Your task to perform on an android device: Open Google Maps and go to "Timeline" Image 0: 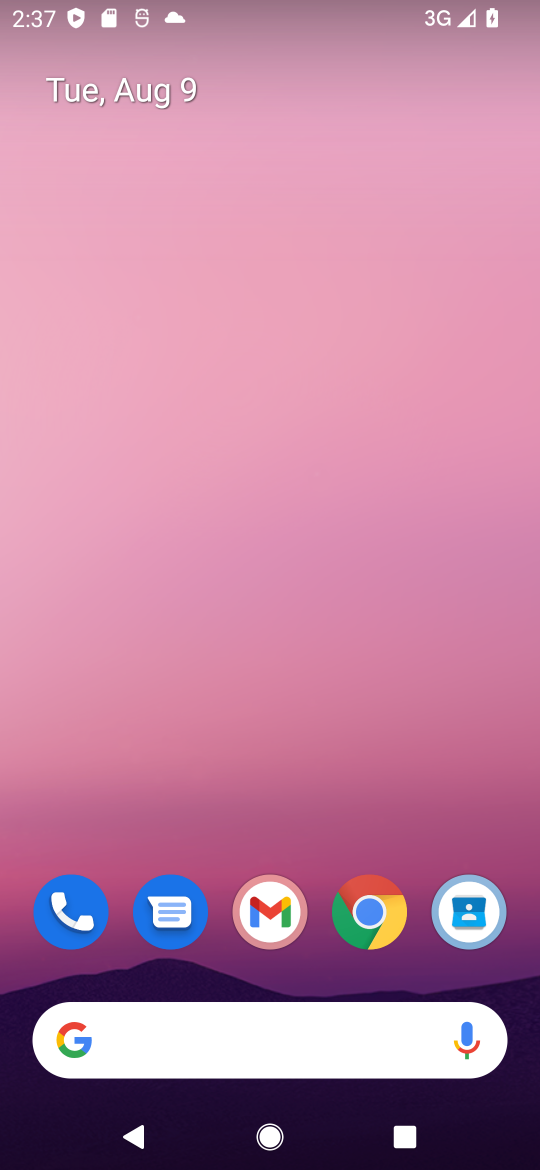
Step 0: drag from (327, 778) to (247, 216)
Your task to perform on an android device: Open Google Maps and go to "Timeline" Image 1: 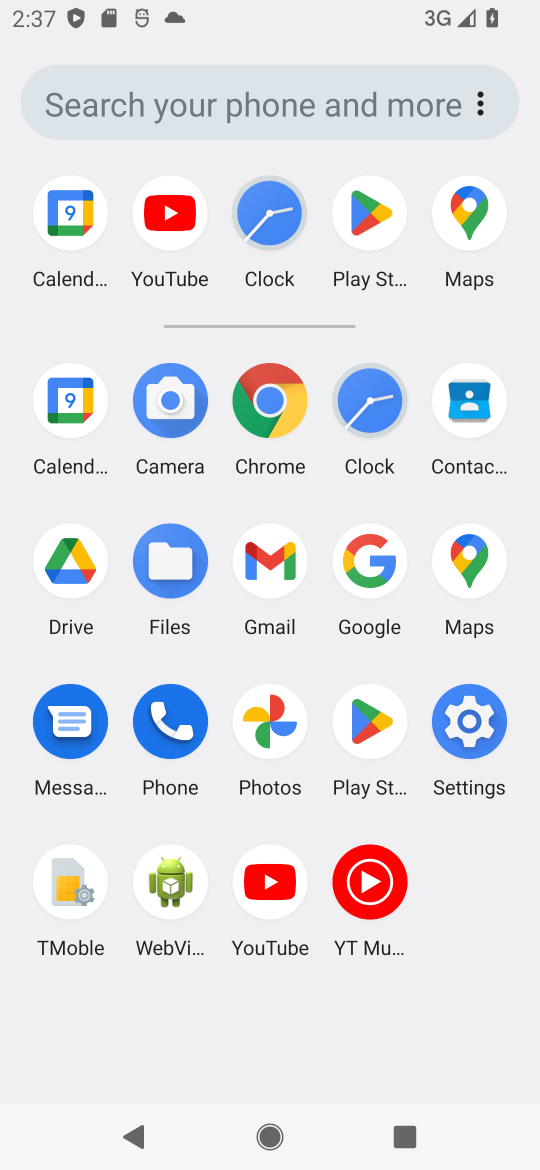
Step 1: click (471, 557)
Your task to perform on an android device: Open Google Maps and go to "Timeline" Image 2: 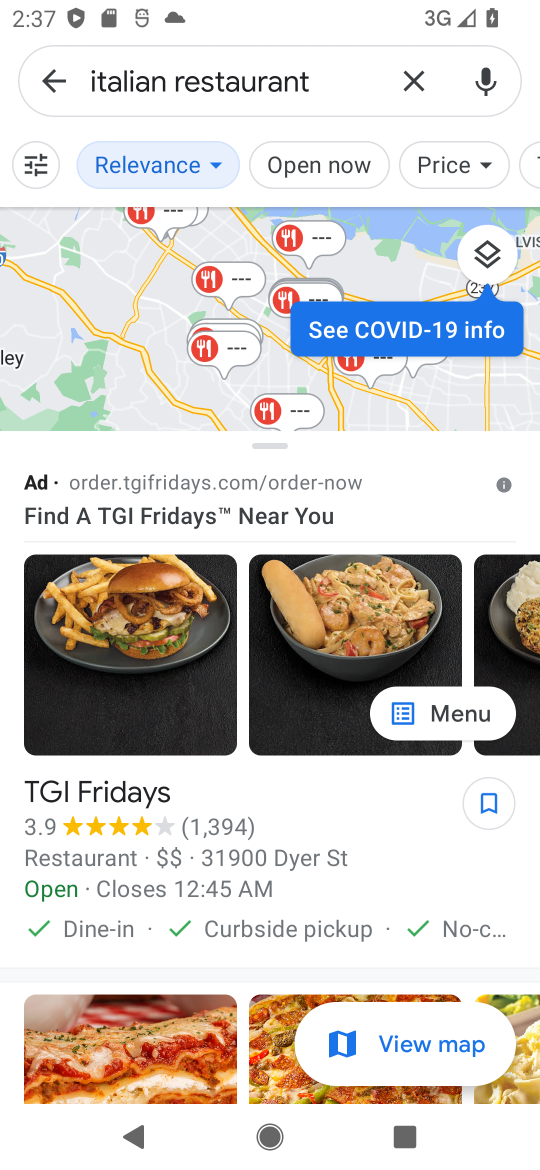
Step 2: click (44, 79)
Your task to perform on an android device: Open Google Maps and go to "Timeline" Image 3: 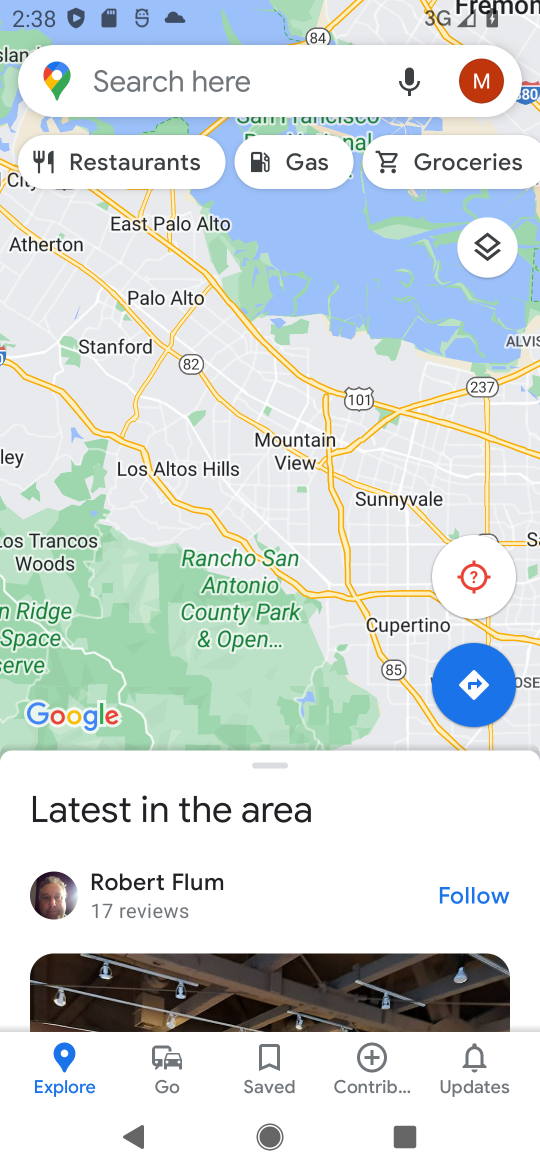
Step 3: click (474, 86)
Your task to perform on an android device: Open Google Maps and go to "Timeline" Image 4: 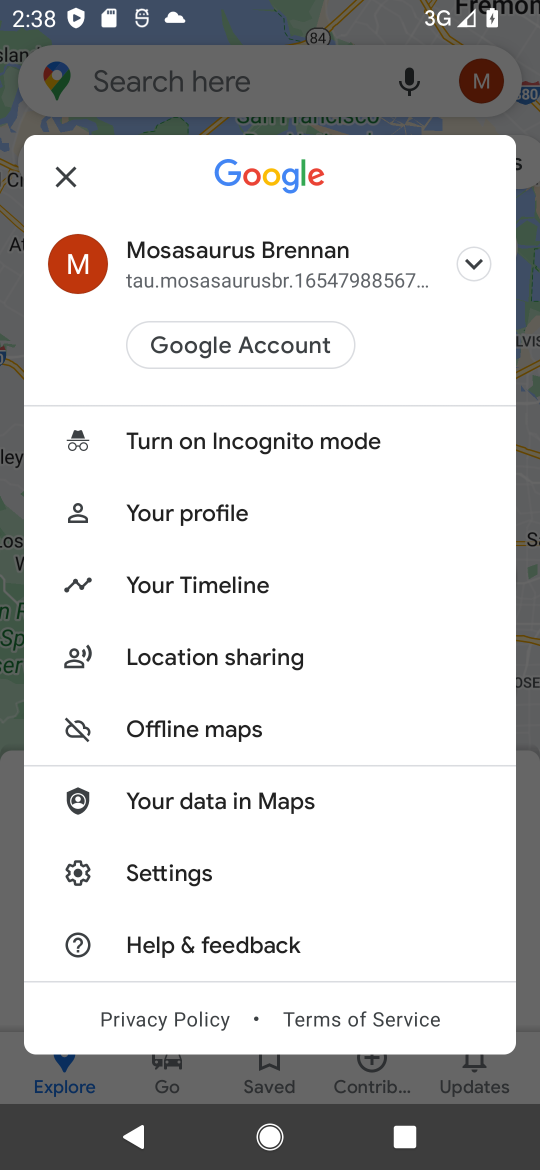
Step 4: click (200, 579)
Your task to perform on an android device: Open Google Maps and go to "Timeline" Image 5: 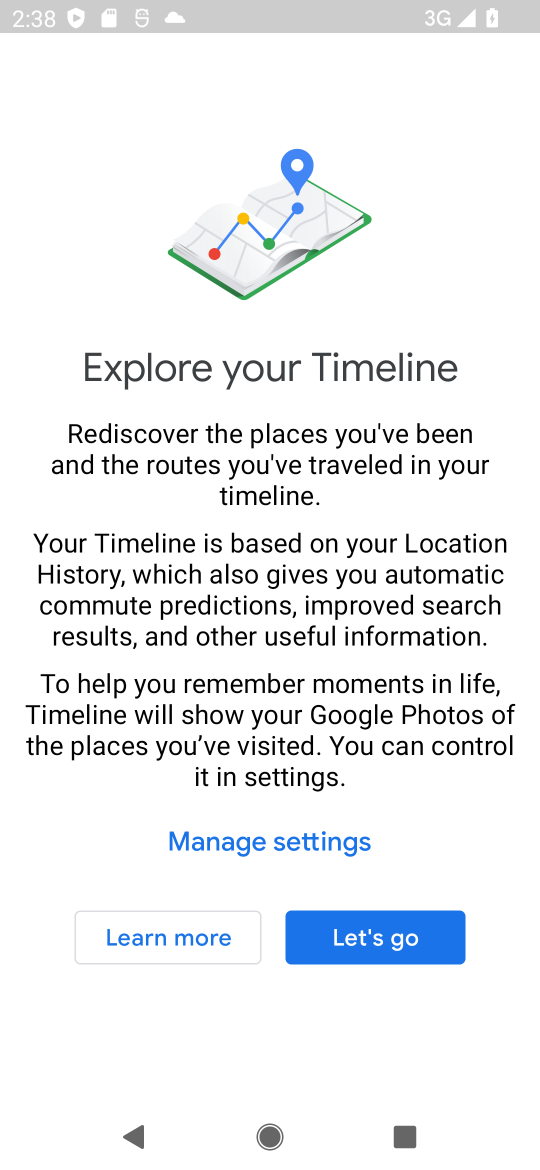
Step 5: click (366, 944)
Your task to perform on an android device: Open Google Maps and go to "Timeline" Image 6: 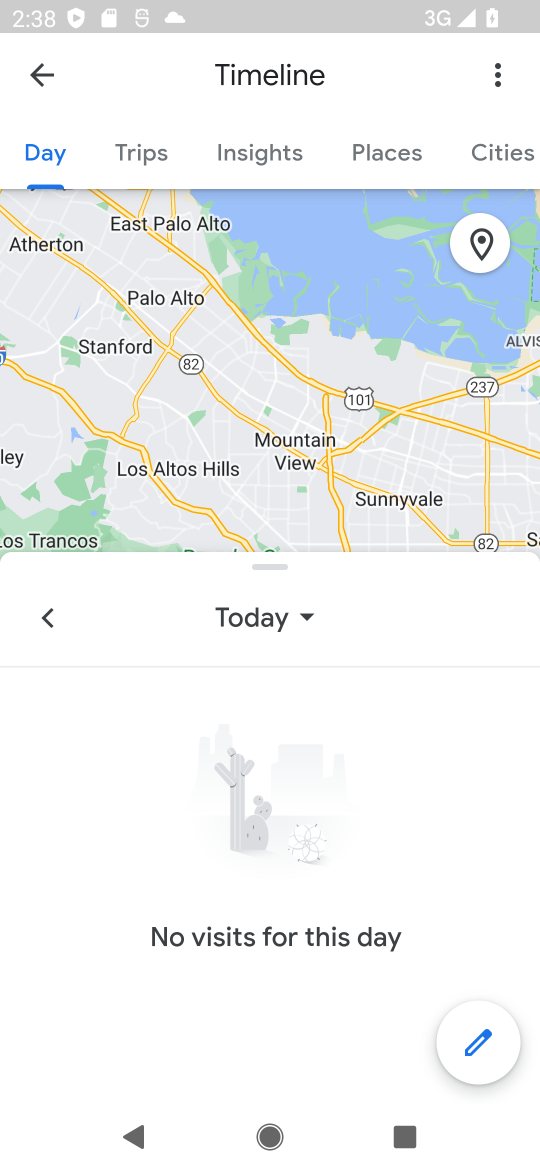
Step 6: task complete